Your task to perform on an android device: Open battery settings Image 0: 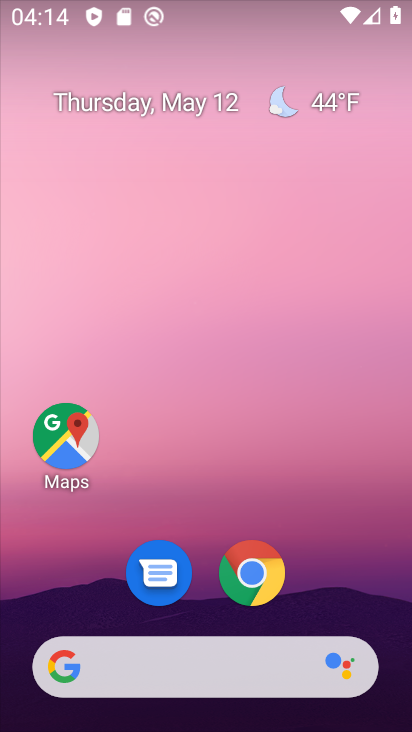
Step 0: drag from (390, 662) to (337, 107)
Your task to perform on an android device: Open battery settings Image 1: 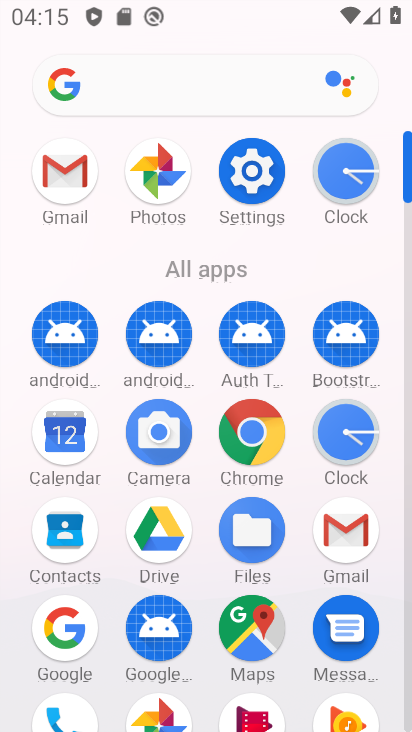
Step 1: click (407, 715)
Your task to perform on an android device: Open battery settings Image 2: 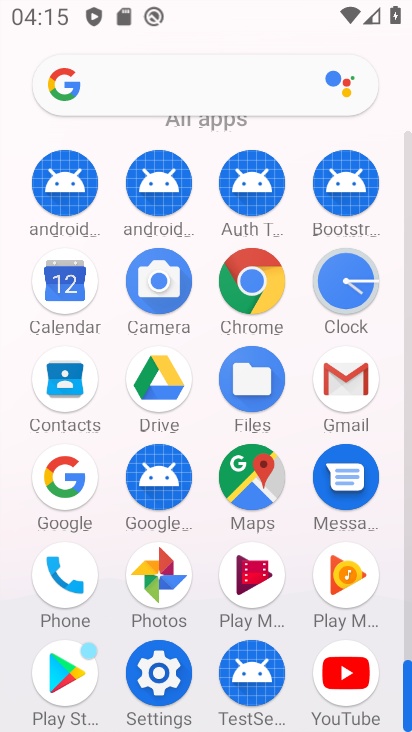
Step 2: click (157, 673)
Your task to perform on an android device: Open battery settings Image 3: 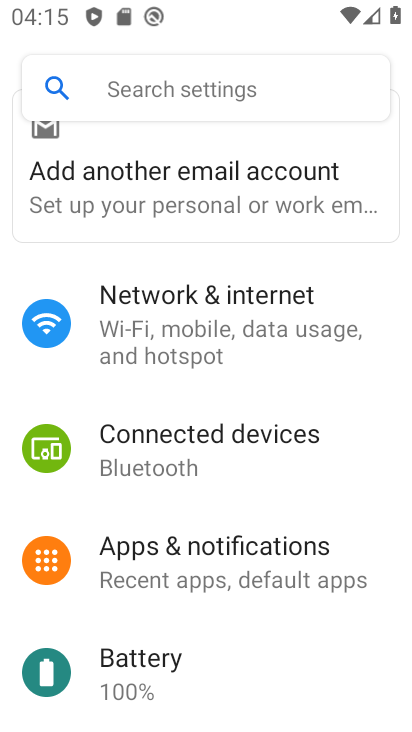
Step 3: click (130, 651)
Your task to perform on an android device: Open battery settings Image 4: 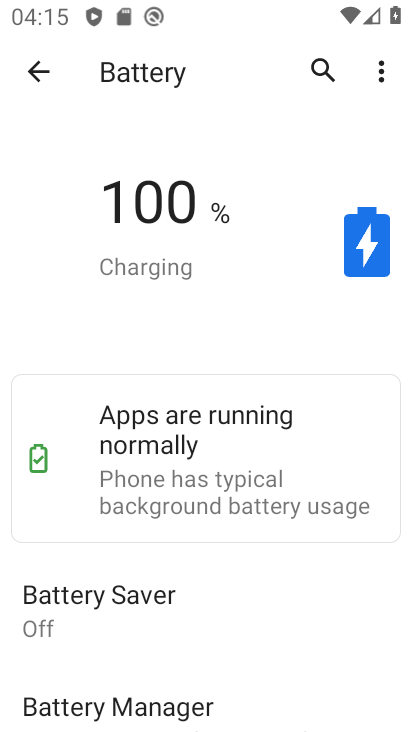
Step 4: task complete